Your task to perform on an android device: toggle javascript in the chrome app Image 0: 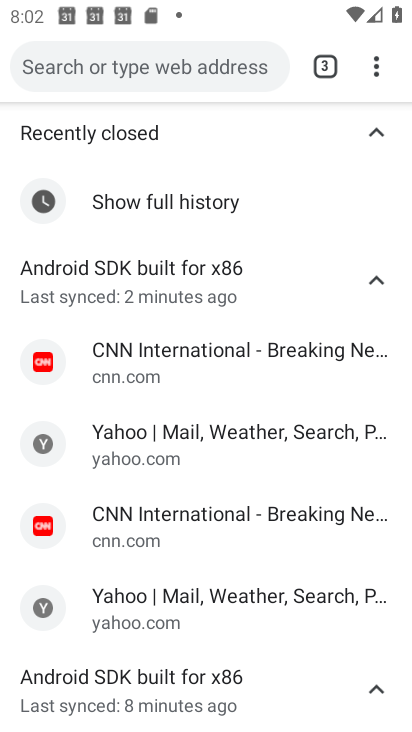
Step 0: press home button
Your task to perform on an android device: toggle javascript in the chrome app Image 1: 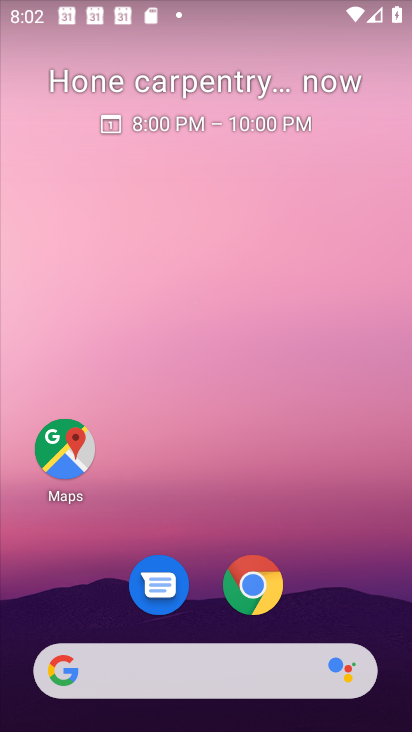
Step 1: click (268, 586)
Your task to perform on an android device: toggle javascript in the chrome app Image 2: 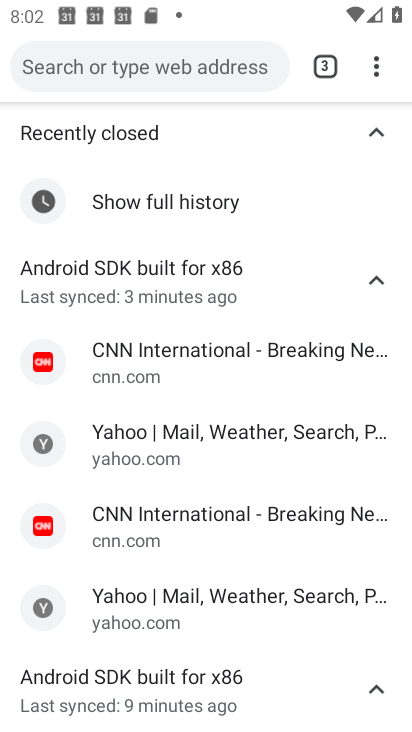
Step 2: click (370, 62)
Your task to perform on an android device: toggle javascript in the chrome app Image 3: 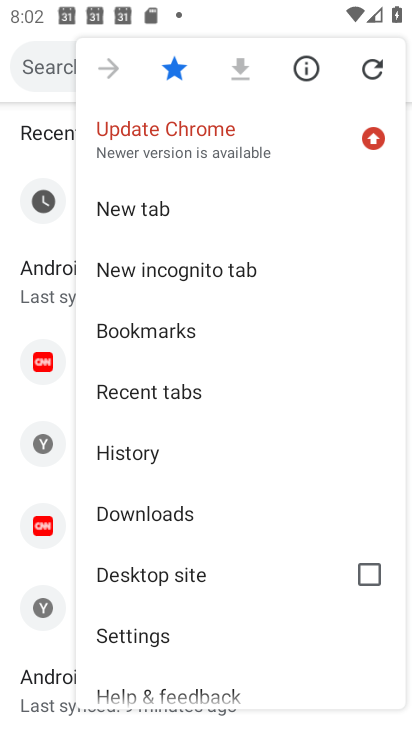
Step 3: click (197, 630)
Your task to perform on an android device: toggle javascript in the chrome app Image 4: 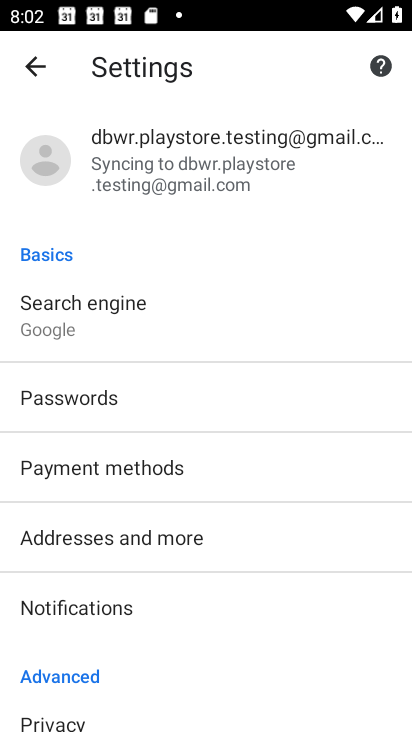
Step 4: drag from (240, 583) to (255, 253)
Your task to perform on an android device: toggle javascript in the chrome app Image 5: 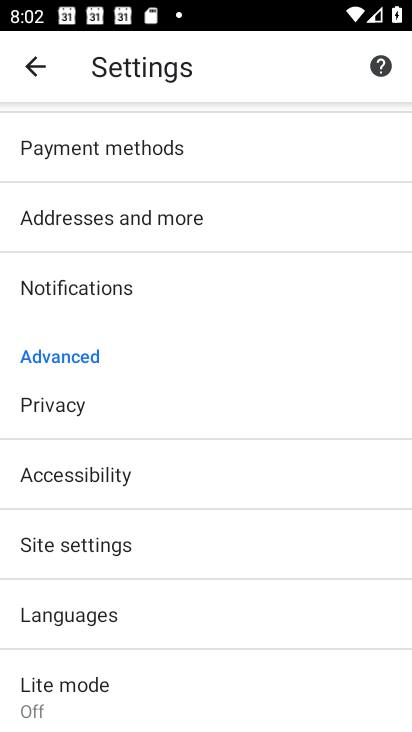
Step 5: click (187, 548)
Your task to perform on an android device: toggle javascript in the chrome app Image 6: 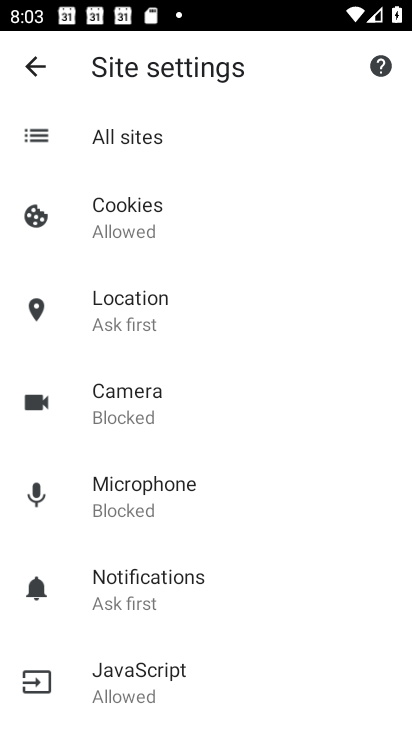
Step 6: click (197, 672)
Your task to perform on an android device: toggle javascript in the chrome app Image 7: 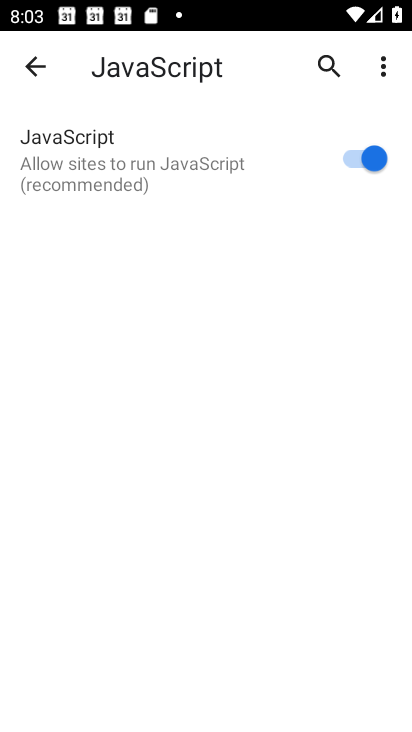
Step 7: click (358, 142)
Your task to perform on an android device: toggle javascript in the chrome app Image 8: 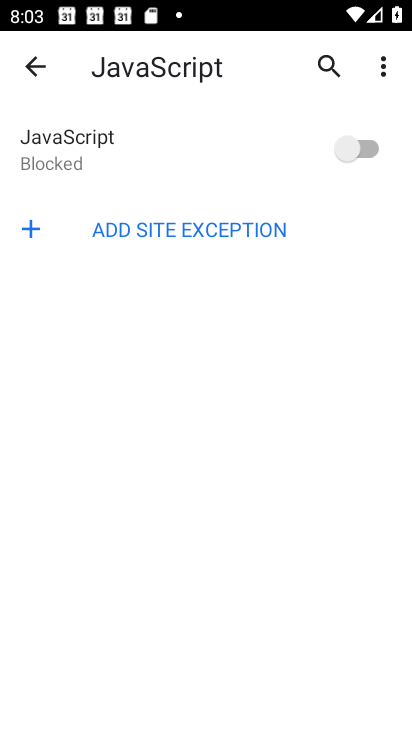
Step 8: task complete